Your task to perform on an android device: Play the last video I watched on Youtube Image 0: 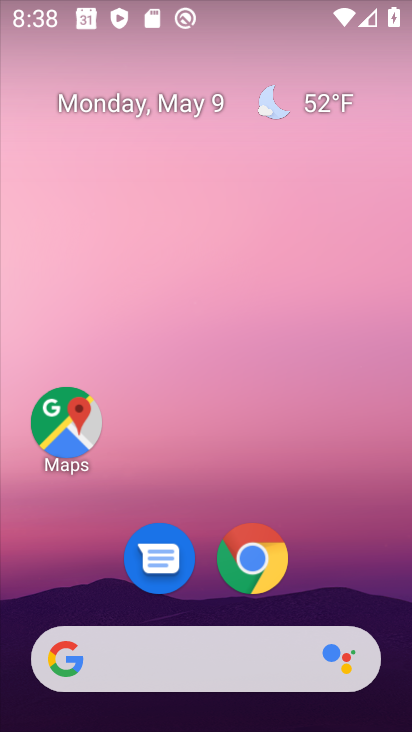
Step 0: drag from (283, 100) to (380, 14)
Your task to perform on an android device: Play the last video I watched on Youtube Image 1: 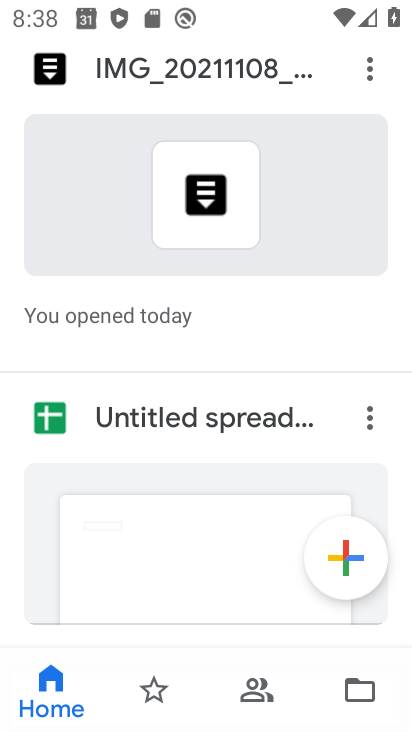
Step 1: press back button
Your task to perform on an android device: Play the last video I watched on Youtube Image 2: 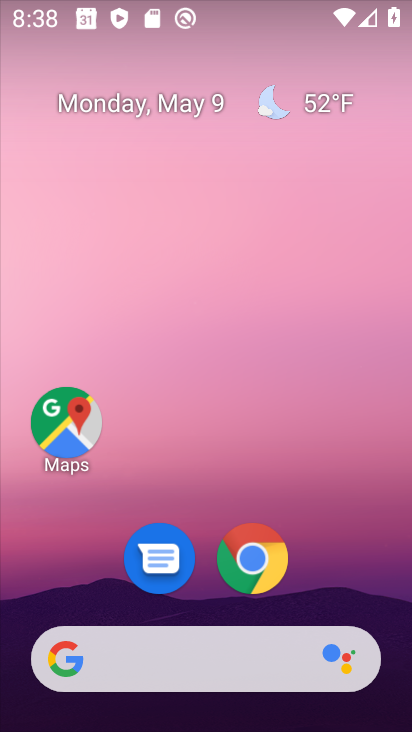
Step 2: drag from (204, 580) to (213, 101)
Your task to perform on an android device: Play the last video I watched on Youtube Image 3: 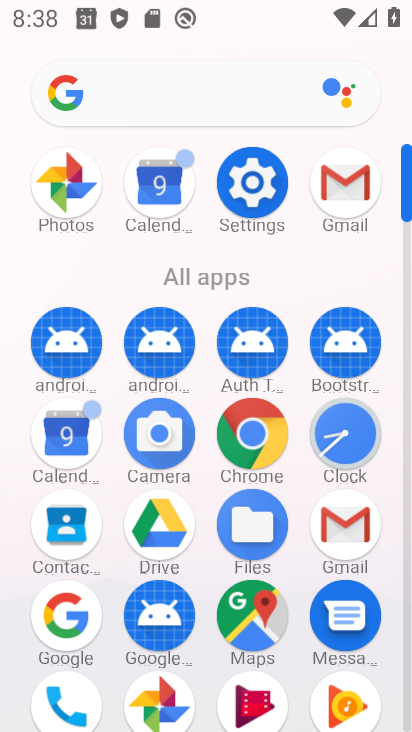
Step 3: drag from (183, 590) to (266, 4)
Your task to perform on an android device: Play the last video I watched on Youtube Image 4: 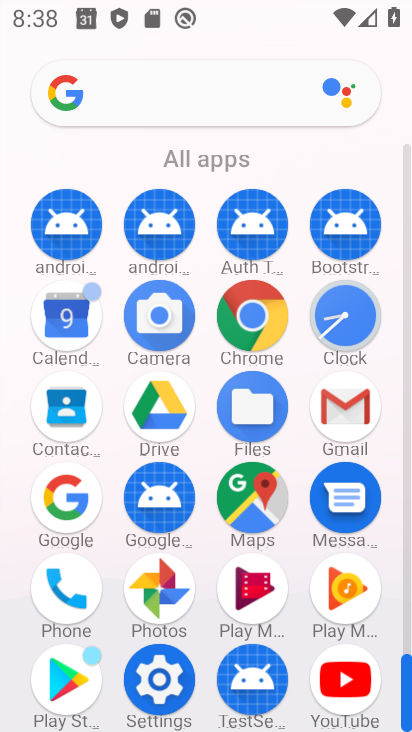
Step 4: click (343, 679)
Your task to perform on an android device: Play the last video I watched on Youtube Image 5: 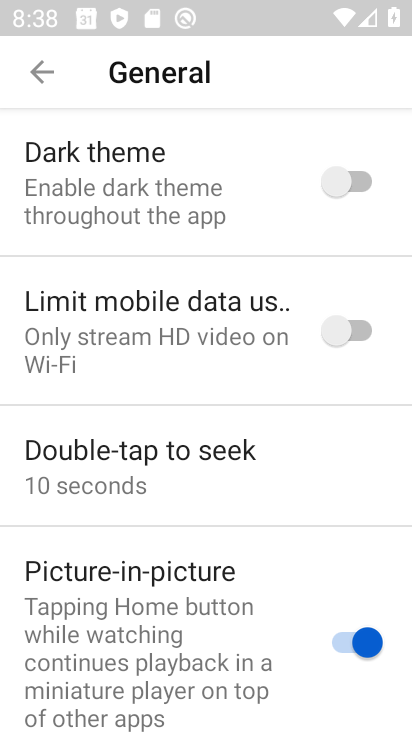
Step 5: click (42, 50)
Your task to perform on an android device: Play the last video I watched on Youtube Image 6: 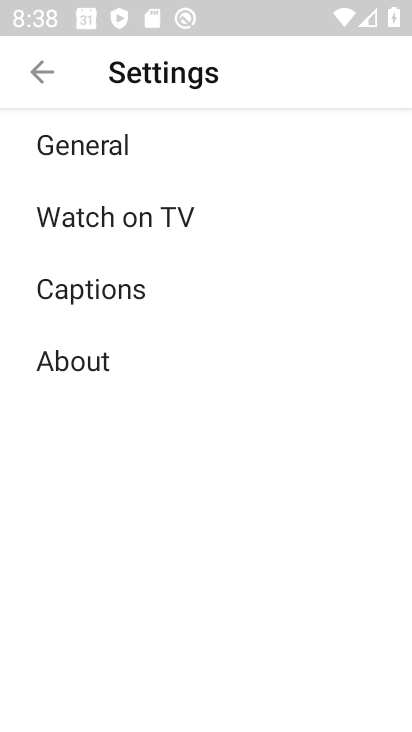
Step 6: click (29, 65)
Your task to perform on an android device: Play the last video I watched on Youtube Image 7: 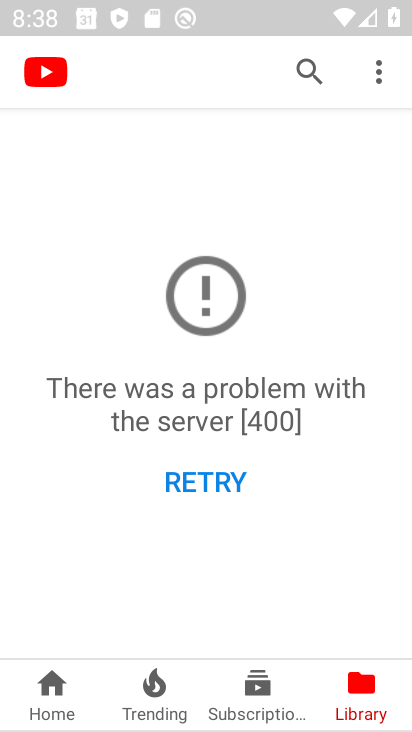
Step 7: click (375, 708)
Your task to perform on an android device: Play the last video I watched on Youtube Image 8: 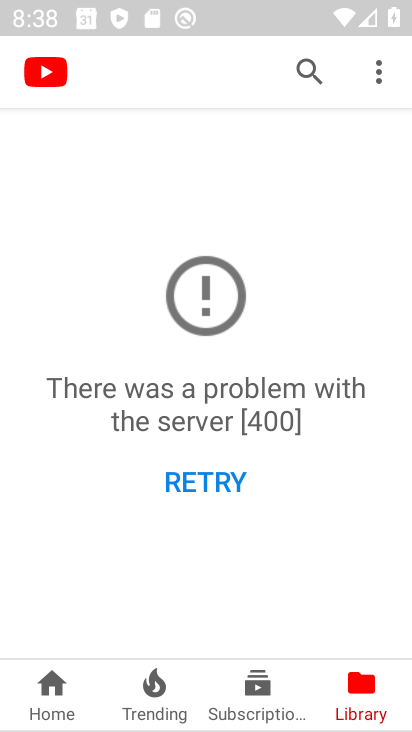
Step 8: click (353, 697)
Your task to perform on an android device: Play the last video I watched on Youtube Image 9: 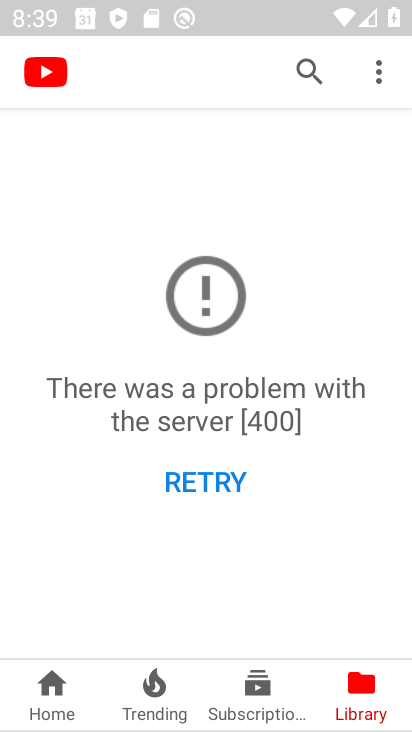
Step 9: task complete